Your task to perform on an android device: Open calendar and show me the third week of next month Image 0: 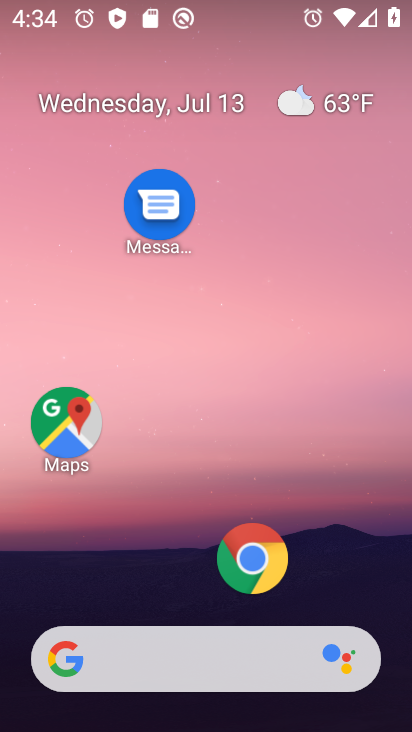
Step 0: drag from (143, 633) to (144, 284)
Your task to perform on an android device: Open calendar and show me the third week of next month Image 1: 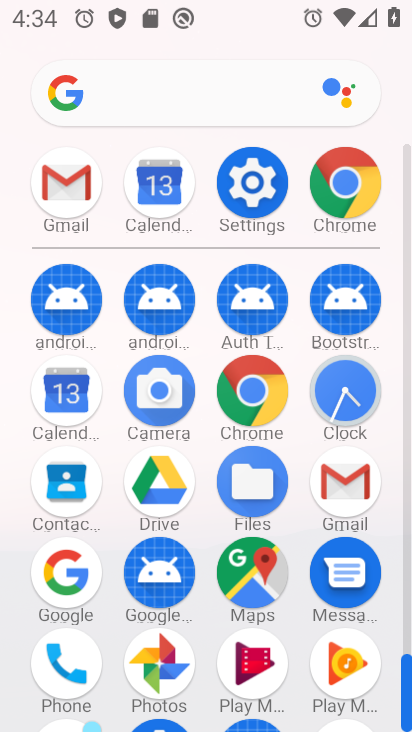
Step 1: click (162, 208)
Your task to perform on an android device: Open calendar and show me the third week of next month Image 2: 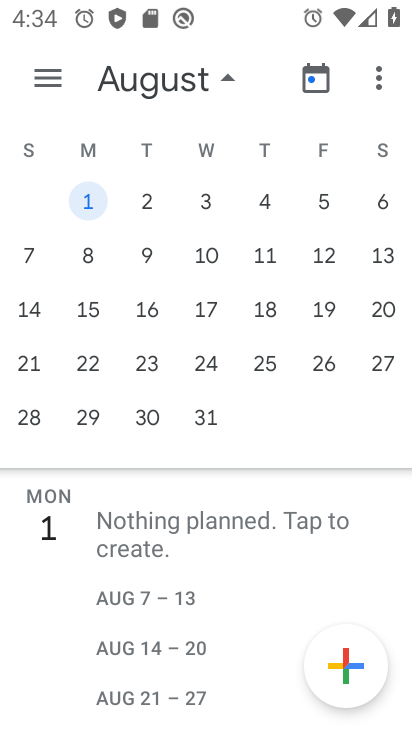
Step 2: click (31, 306)
Your task to perform on an android device: Open calendar and show me the third week of next month Image 3: 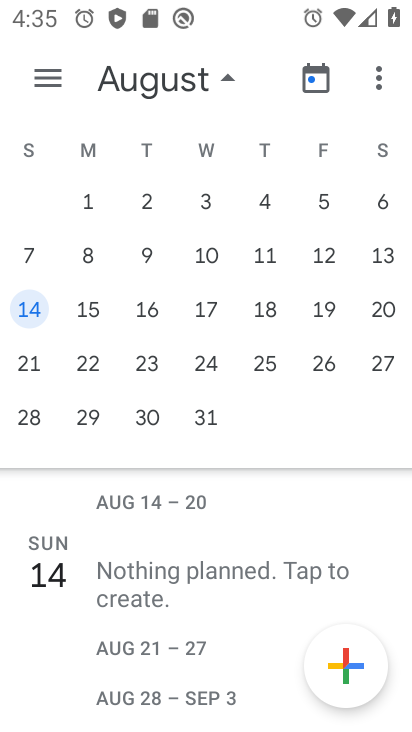
Step 3: task complete